Your task to perform on an android device: Search for a coffee table on Crate & Barrel Image 0: 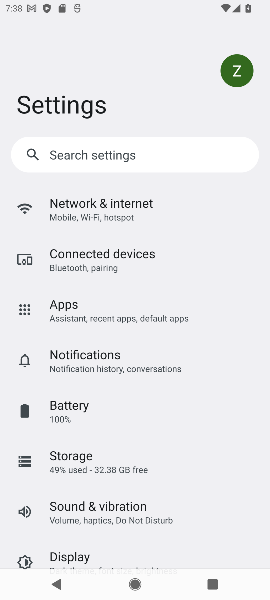
Step 0: press home button
Your task to perform on an android device: Search for a coffee table on Crate & Barrel Image 1: 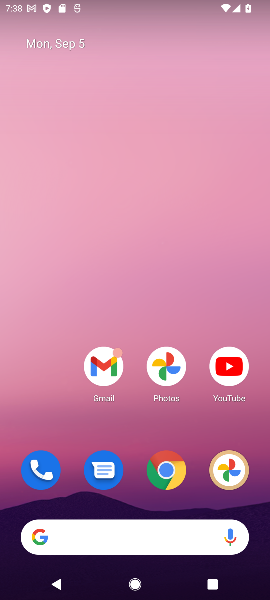
Step 1: click (168, 483)
Your task to perform on an android device: Search for a coffee table on Crate & Barrel Image 2: 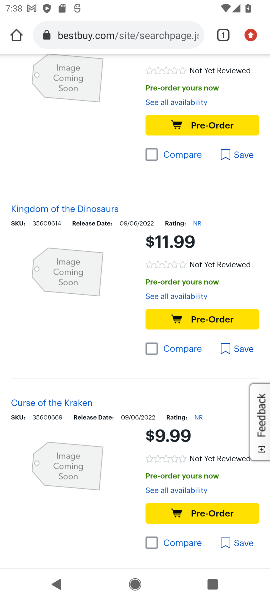
Step 2: drag from (146, 168) to (115, 459)
Your task to perform on an android device: Search for a coffee table on Crate & Barrel Image 3: 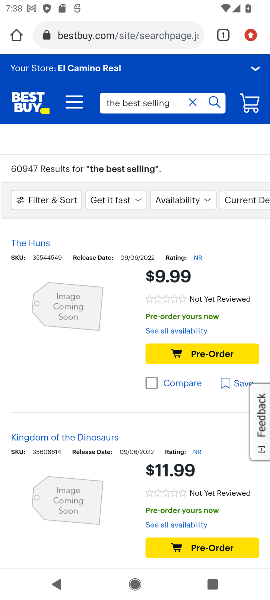
Step 3: drag from (137, 201) to (133, 344)
Your task to perform on an android device: Search for a coffee table on Crate & Barrel Image 4: 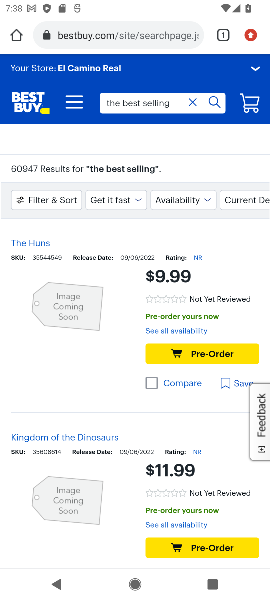
Step 4: click (192, 101)
Your task to perform on an android device: Search for a coffee table on Crate & Barrel Image 5: 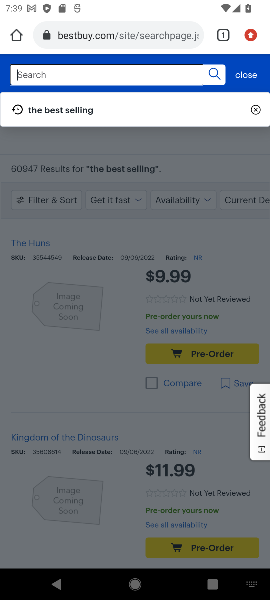
Step 5: type "a coffee table"
Your task to perform on an android device: Search for a coffee table on Crate & Barrel Image 6: 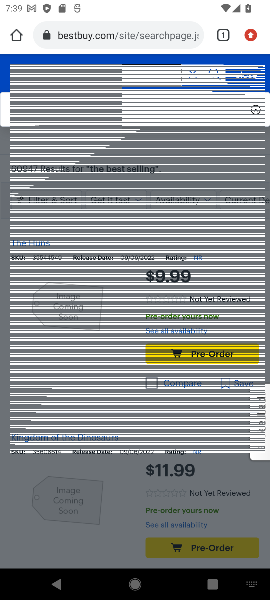
Step 6: type ""
Your task to perform on an android device: Search for a coffee table on Crate & Barrel Image 7: 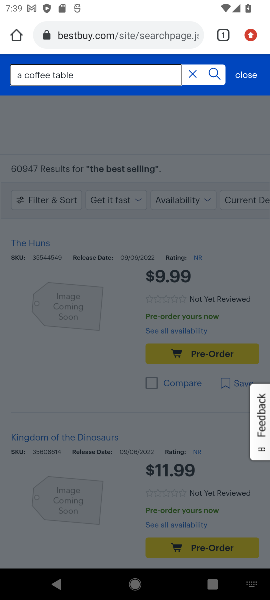
Step 7: click (220, 76)
Your task to perform on an android device: Search for a coffee table on Crate & Barrel Image 8: 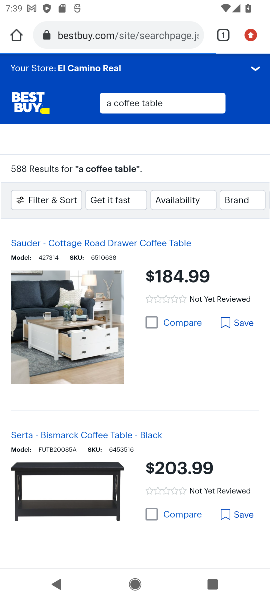
Step 8: task complete